Your task to perform on an android device: Open maps Image 0: 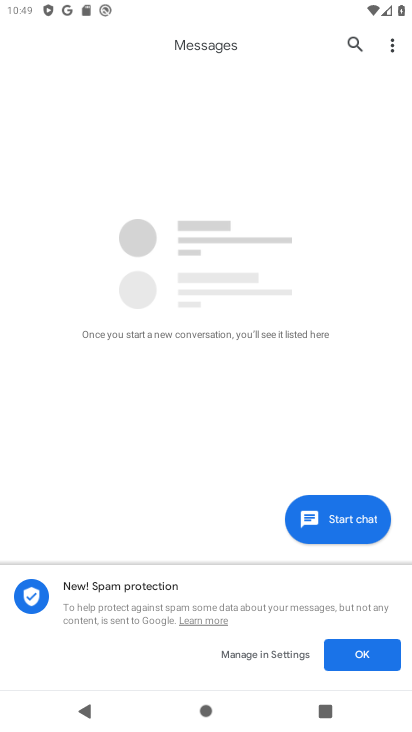
Step 0: press home button
Your task to perform on an android device: Open maps Image 1: 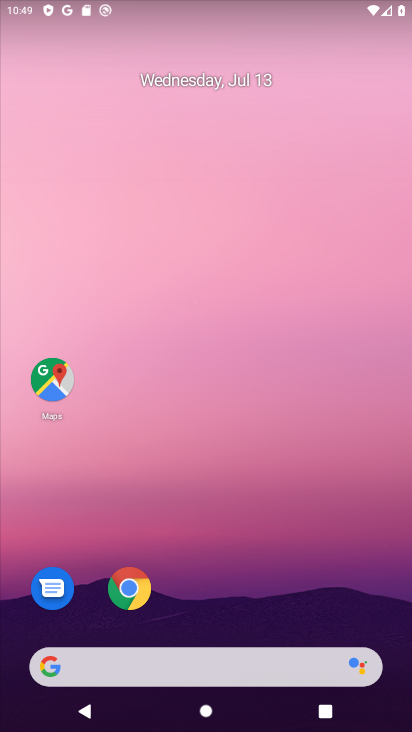
Step 1: drag from (226, 631) to (312, 219)
Your task to perform on an android device: Open maps Image 2: 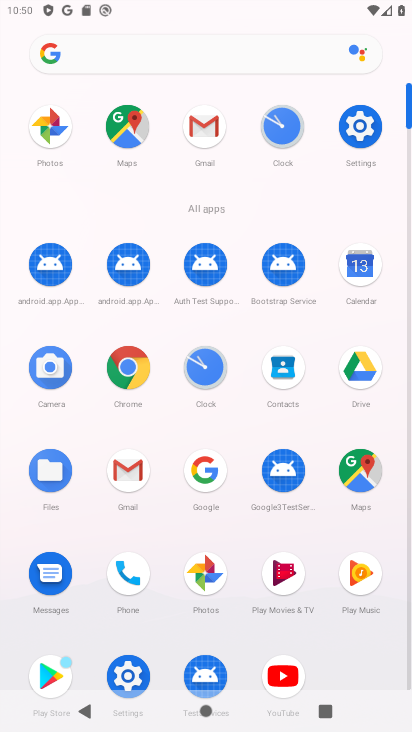
Step 2: click (364, 455)
Your task to perform on an android device: Open maps Image 3: 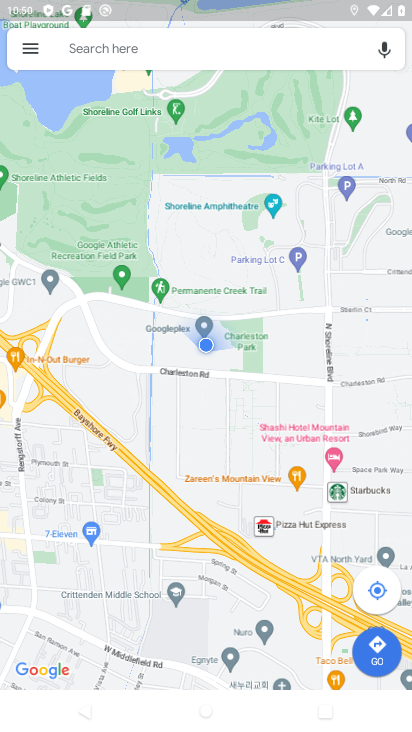
Step 3: task complete